Your task to perform on an android device: turn pop-ups on in chrome Image 0: 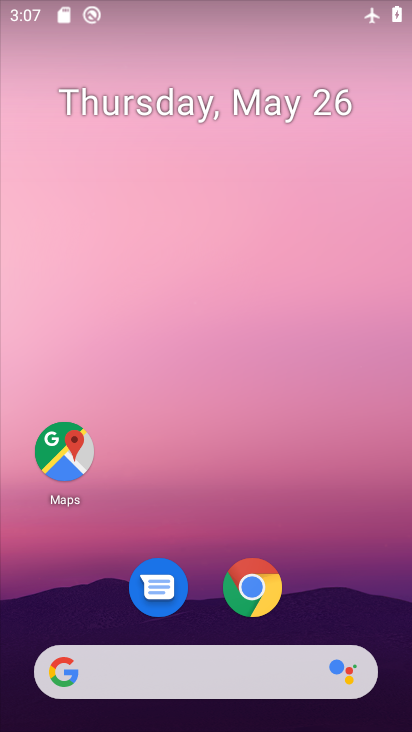
Step 0: drag from (284, 590) to (199, 253)
Your task to perform on an android device: turn pop-ups on in chrome Image 1: 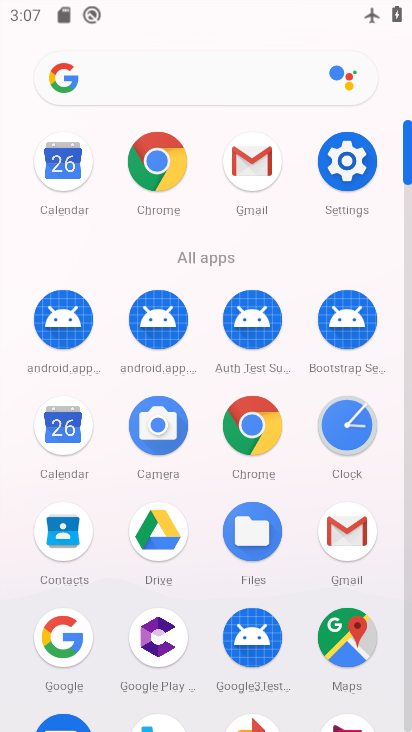
Step 1: click (154, 160)
Your task to perform on an android device: turn pop-ups on in chrome Image 2: 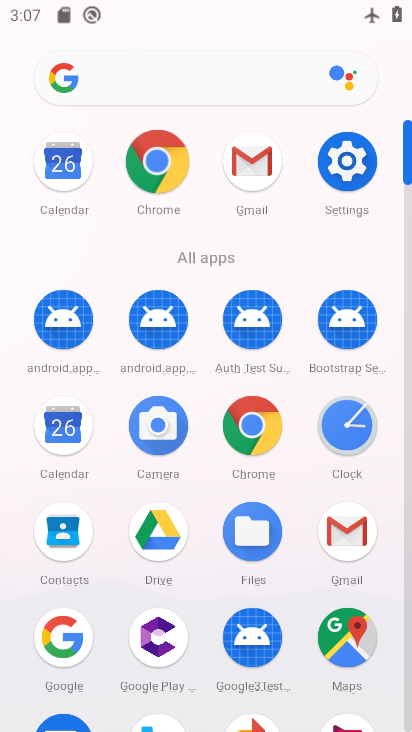
Step 2: click (153, 160)
Your task to perform on an android device: turn pop-ups on in chrome Image 3: 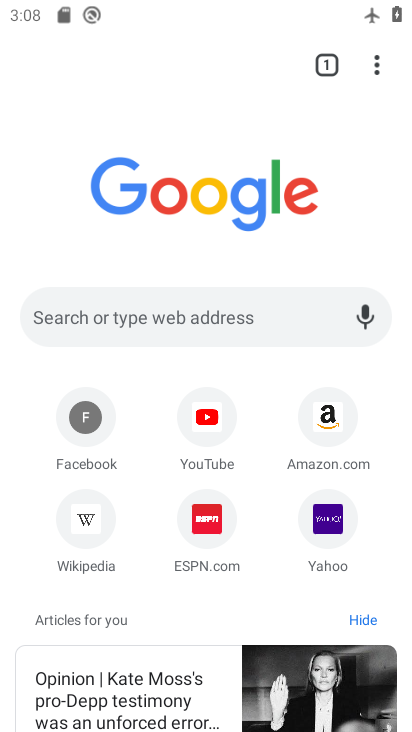
Step 3: click (385, 73)
Your task to perform on an android device: turn pop-ups on in chrome Image 4: 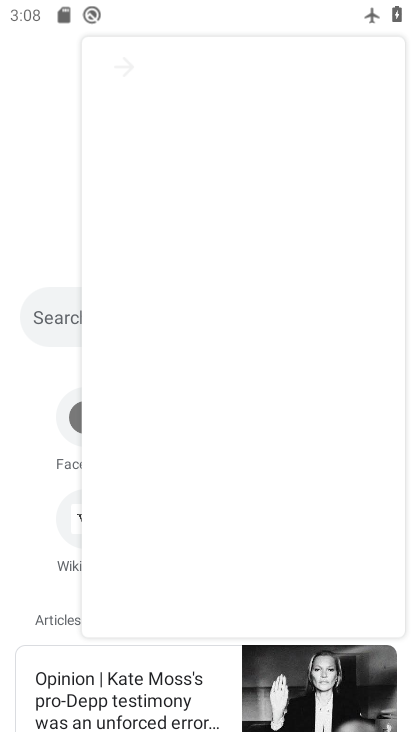
Step 4: click (381, 70)
Your task to perform on an android device: turn pop-ups on in chrome Image 5: 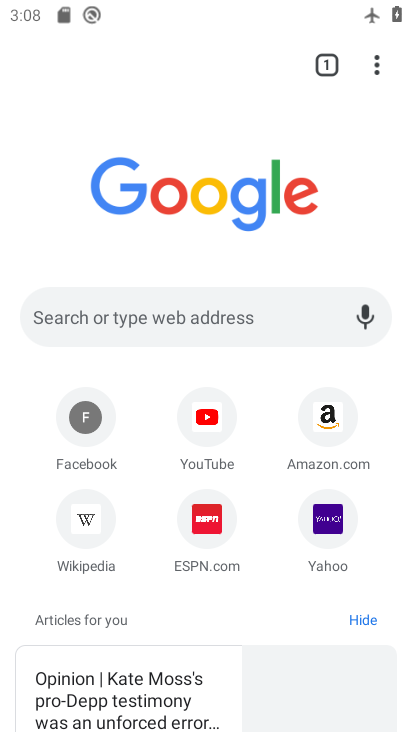
Step 5: click (377, 70)
Your task to perform on an android device: turn pop-ups on in chrome Image 6: 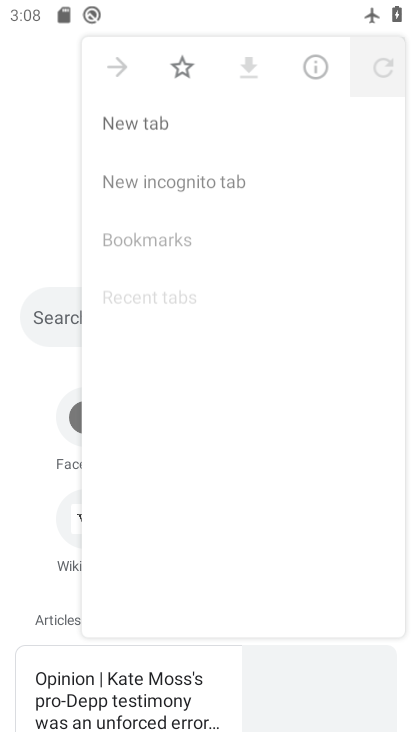
Step 6: click (377, 70)
Your task to perform on an android device: turn pop-ups on in chrome Image 7: 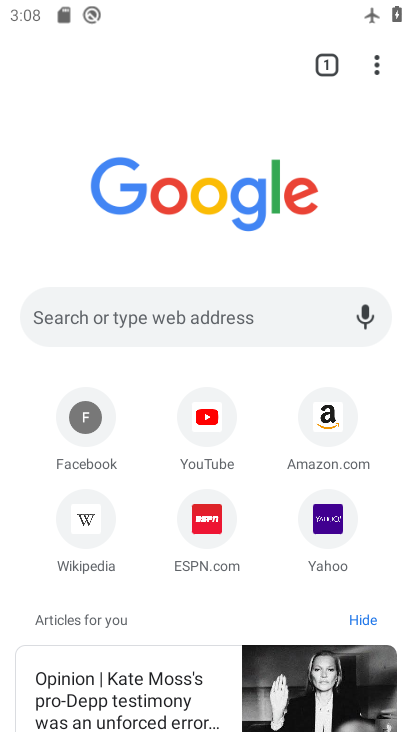
Step 7: drag from (256, 345) to (270, 51)
Your task to perform on an android device: turn pop-ups on in chrome Image 8: 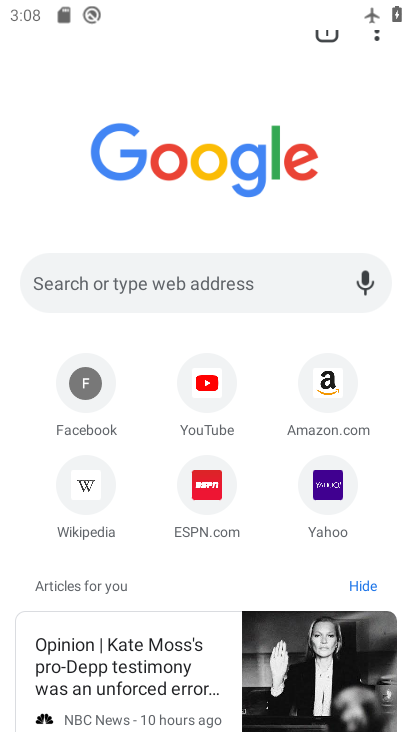
Step 8: drag from (244, 517) to (286, 93)
Your task to perform on an android device: turn pop-ups on in chrome Image 9: 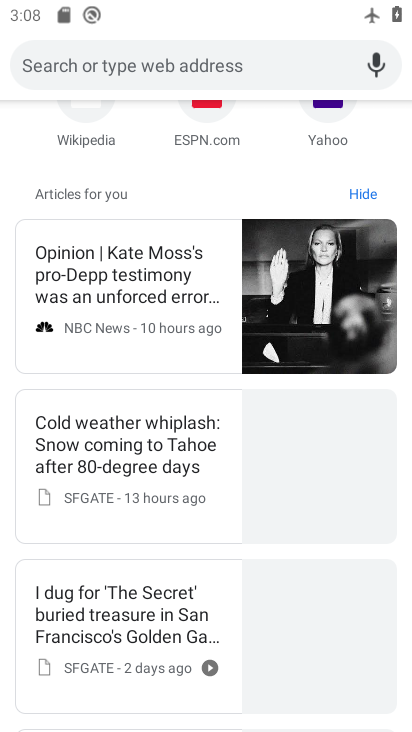
Step 9: drag from (291, 503) to (318, 82)
Your task to perform on an android device: turn pop-ups on in chrome Image 10: 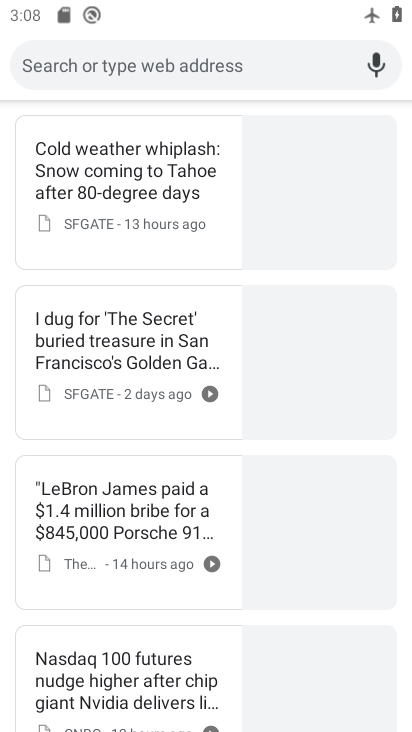
Step 10: press back button
Your task to perform on an android device: turn pop-ups on in chrome Image 11: 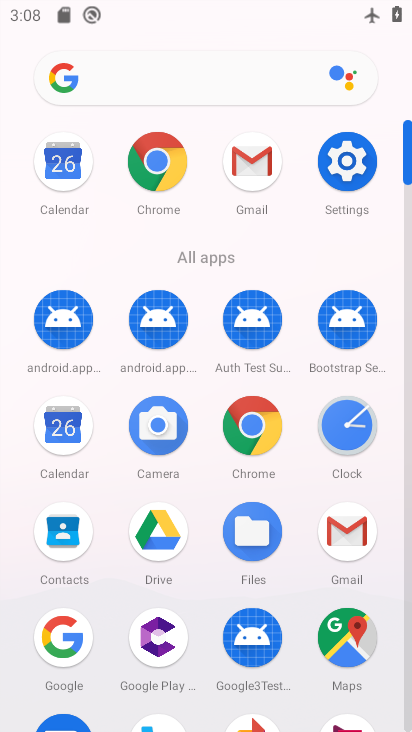
Step 11: click (148, 163)
Your task to perform on an android device: turn pop-ups on in chrome Image 12: 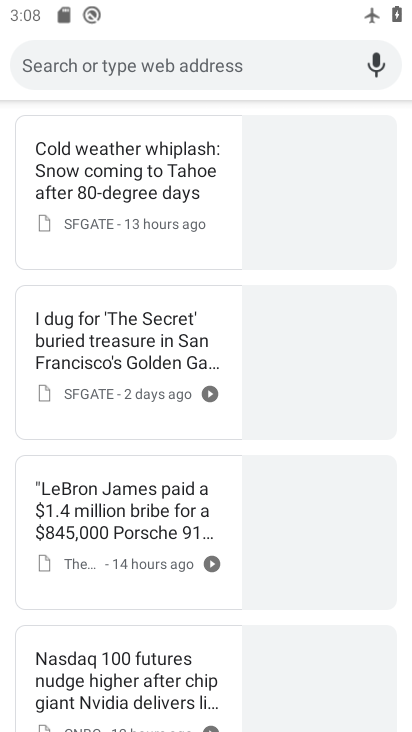
Step 12: press back button
Your task to perform on an android device: turn pop-ups on in chrome Image 13: 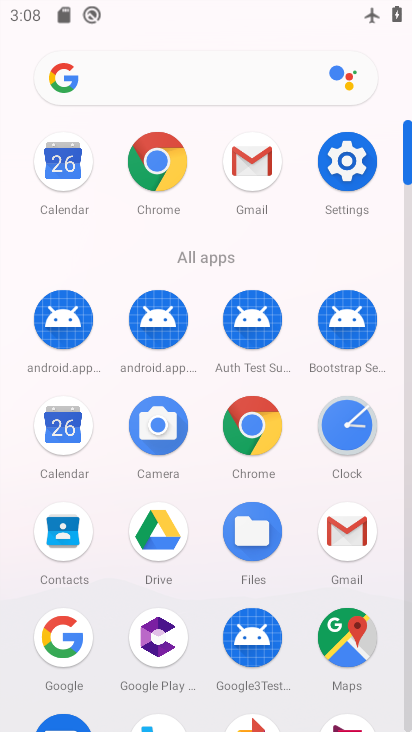
Step 13: click (155, 177)
Your task to perform on an android device: turn pop-ups on in chrome Image 14: 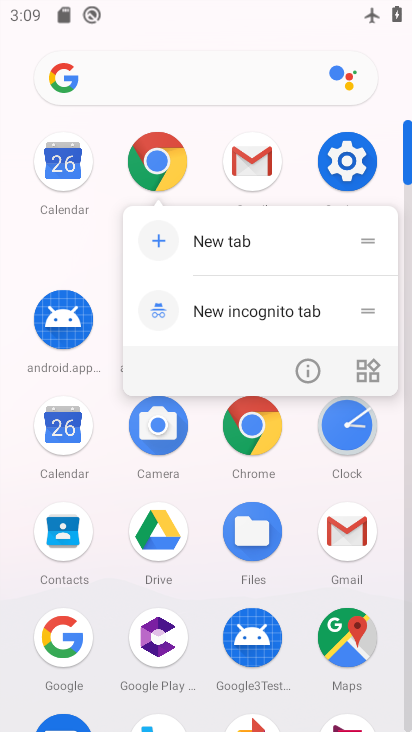
Step 14: click (293, 353)
Your task to perform on an android device: turn pop-ups on in chrome Image 15: 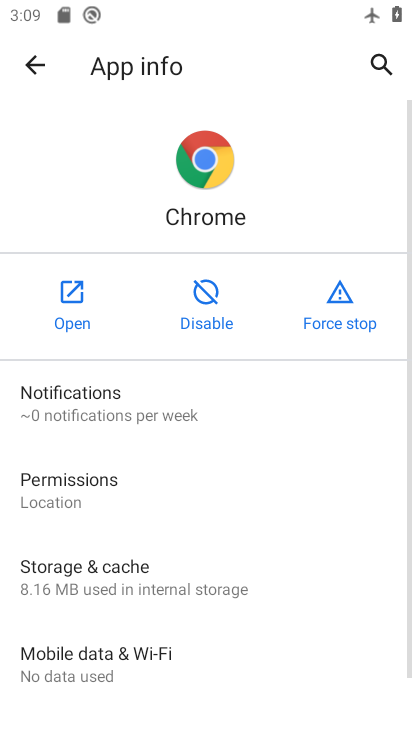
Step 15: click (51, 65)
Your task to perform on an android device: turn pop-ups on in chrome Image 16: 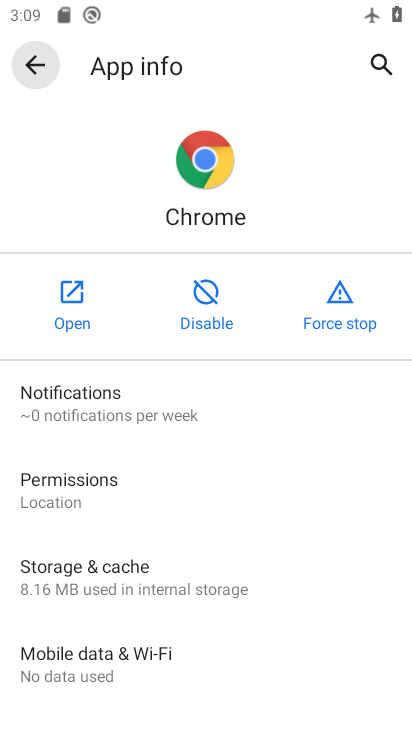
Step 16: click (37, 64)
Your task to perform on an android device: turn pop-ups on in chrome Image 17: 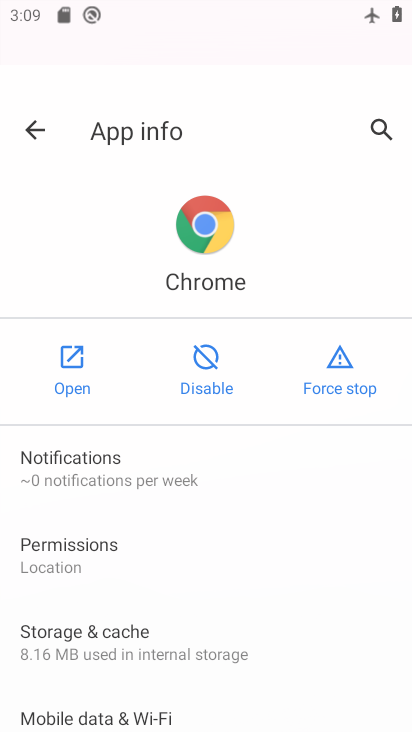
Step 17: click (38, 71)
Your task to perform on an android device: turn pop-ups on in chrome Image 18: 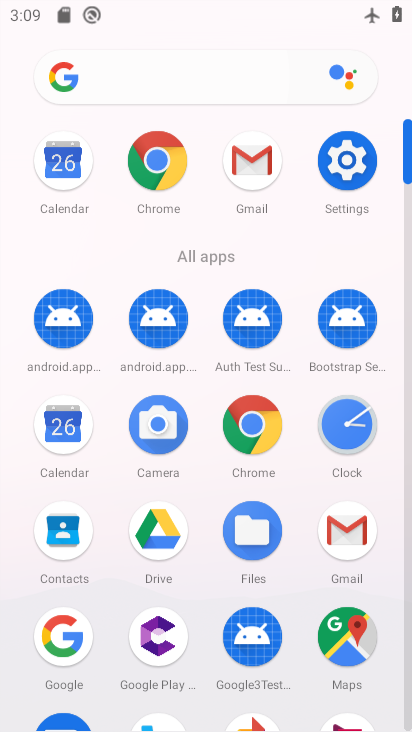
Step 18: click (38, 71)
Your task to perform on an android device: turn pop-ups on in chrome Image 19: 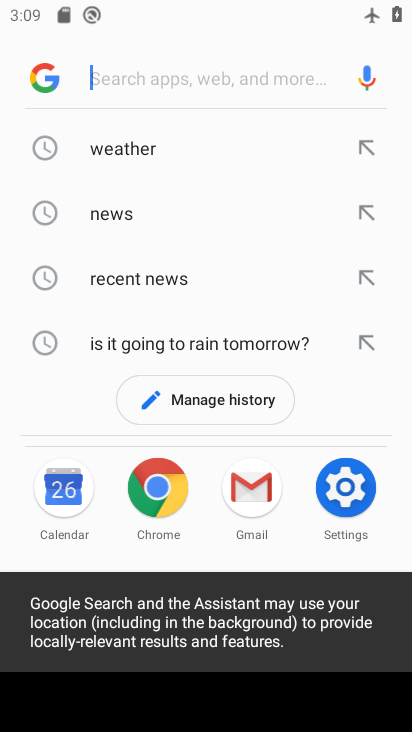
Step 19: click (354, 147)
Your task to perform on an android device: turn pop-ups on in chrome Image 20: 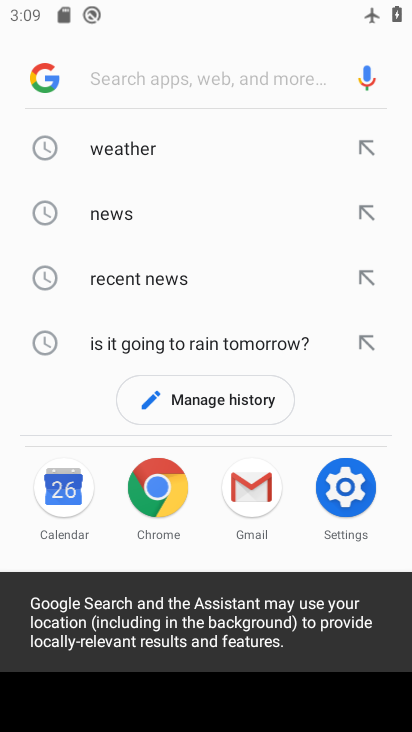
Step 20: click (354, 147)
Your task to perform on an android device: turn pop-ups on in chrome Image 21: 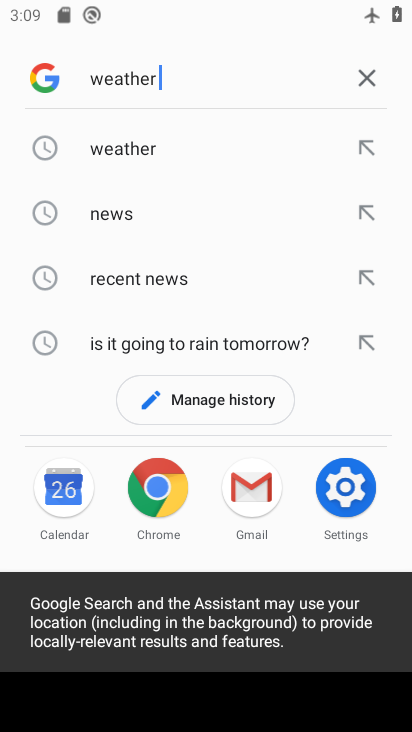
Step 21: click (354, 147)
Your task to perform on an android device: turn pop-ups on in chrome Image 22: 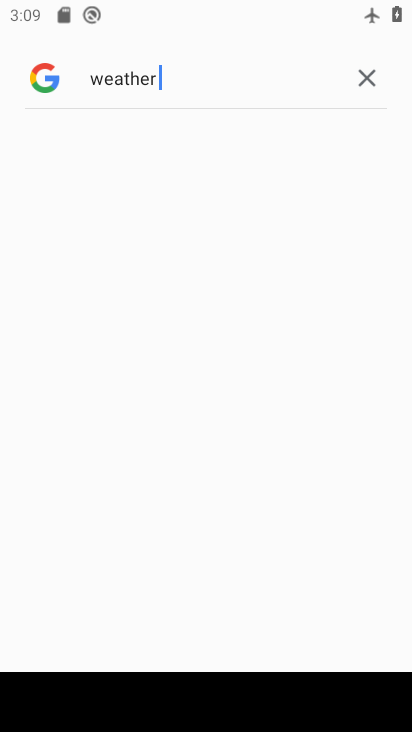
Step 22: click (360, 164)
Your task to perform on an android device: turn pop-ups on in chrome Image 23: 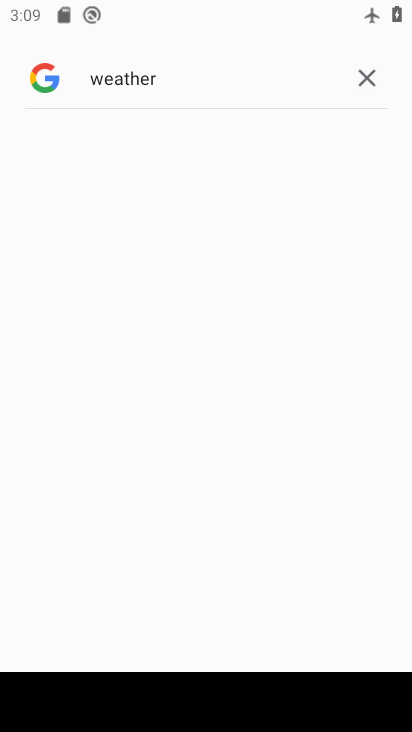
Step 23: press back button
Your task to perform on an android device: turn pop-ups on in chrome Image 24: 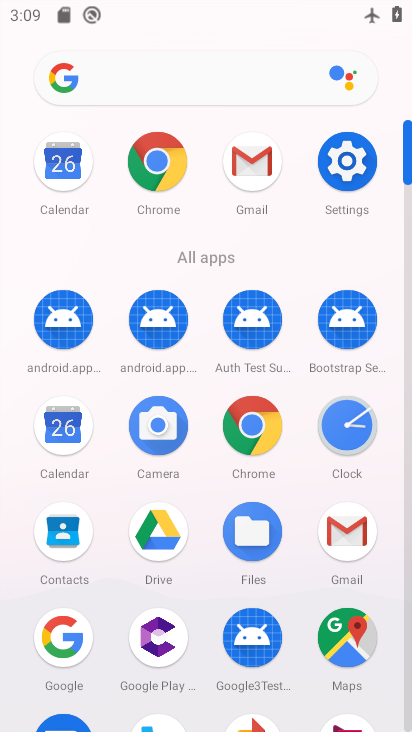
Step 24: click (160, 161)
Your task to perform on an android device: turn pop-ups on in chrome Image 25: 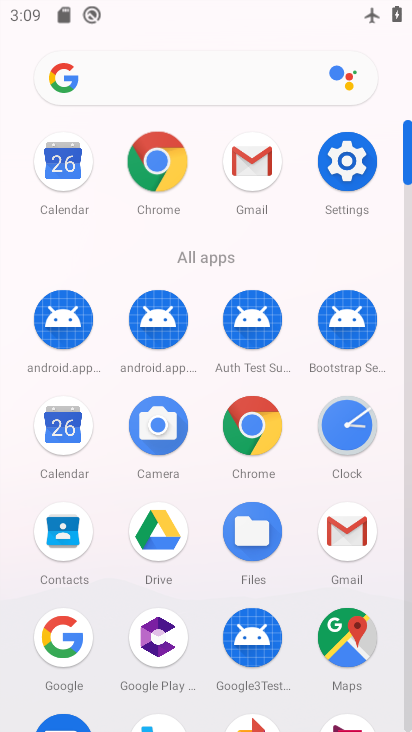
Step 25: click (164, 168)
Your task to perform on an android device: turn pop-ups on in chrome Image 26: 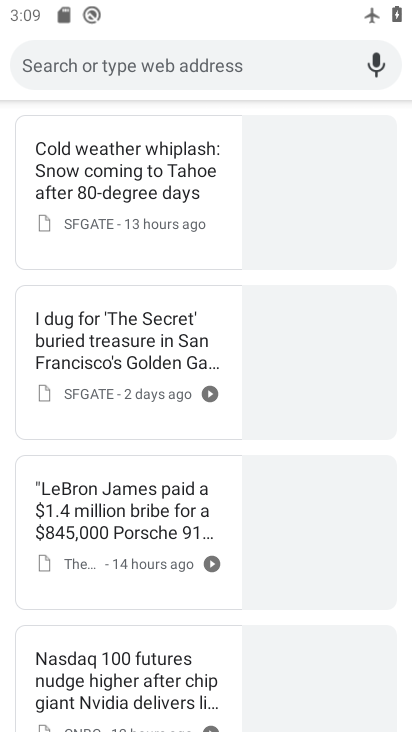
Step 26: press back button
Your task to perform on an android device: turn pop-ups on in chrome Image 27: 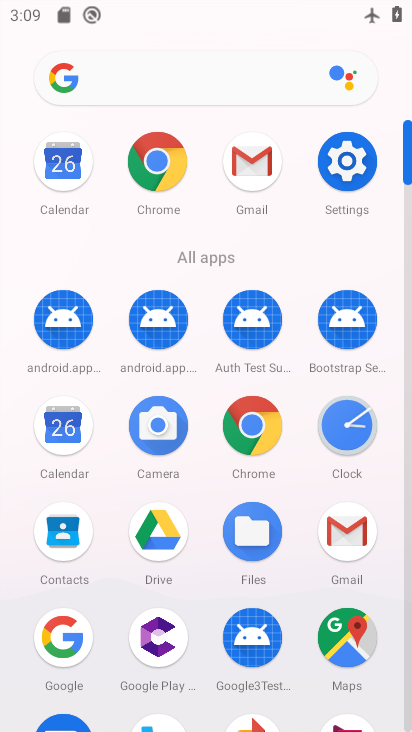
Step 27: click (157, 173)
Your task to perform on an android device: turn pop-ups on in chrome Image 28: 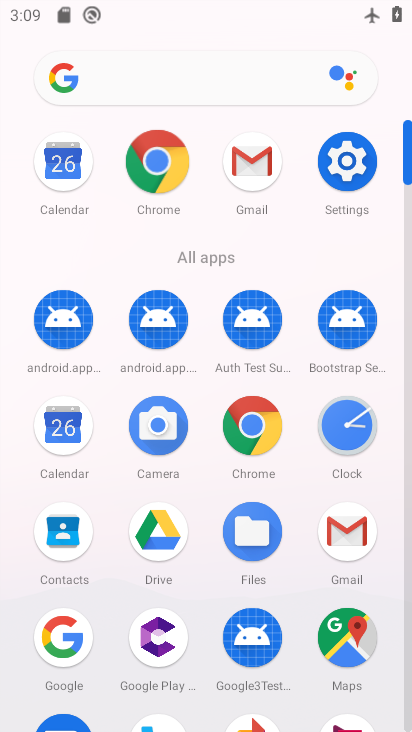
Step 28: click (155, 172)
Your task to perform on an android device: turn pop-ups on in chrome Image 29: 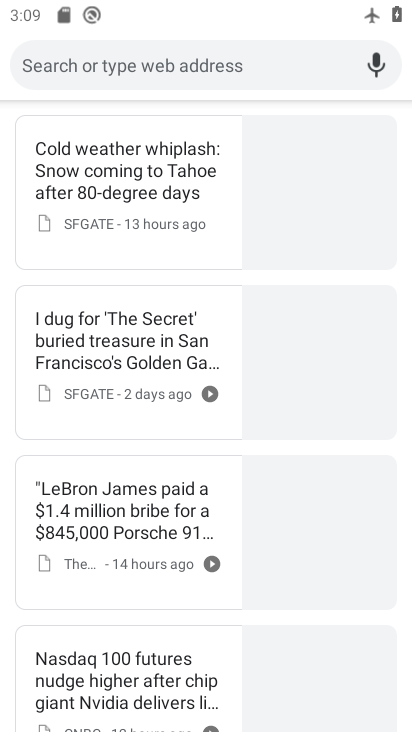
Step 29: press back button
Your task to perform on an android device: turn pop-ups on in chrome Image 30: 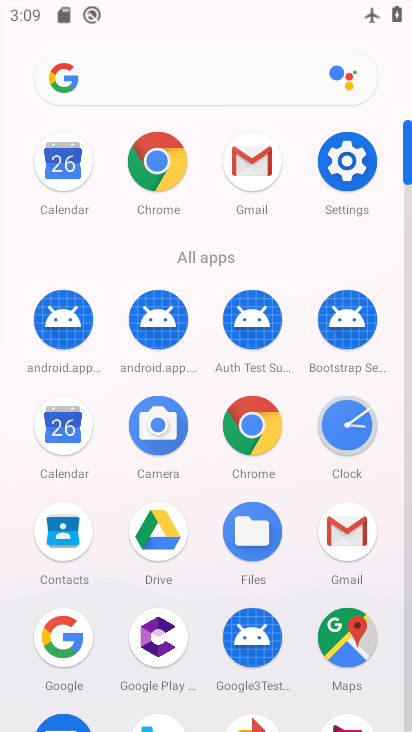
Step 30: click (162, 175)
Your task to perform on an android device: turn pop-ups on in chrome Image 31: 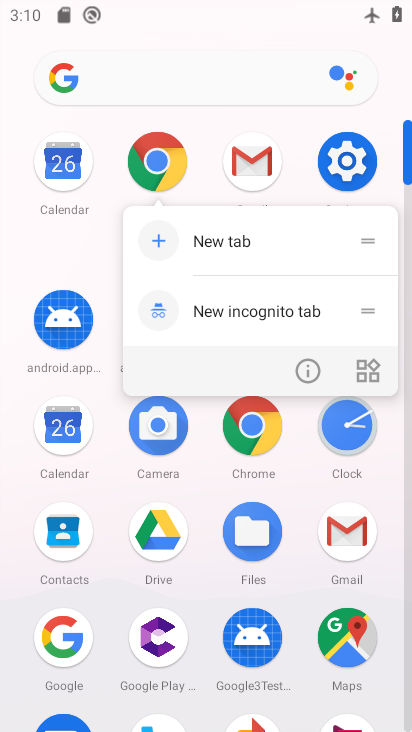
Step 31: click (155, 162)
Your task to perform on an android device: turn pop-ups on in chrome Image 32: 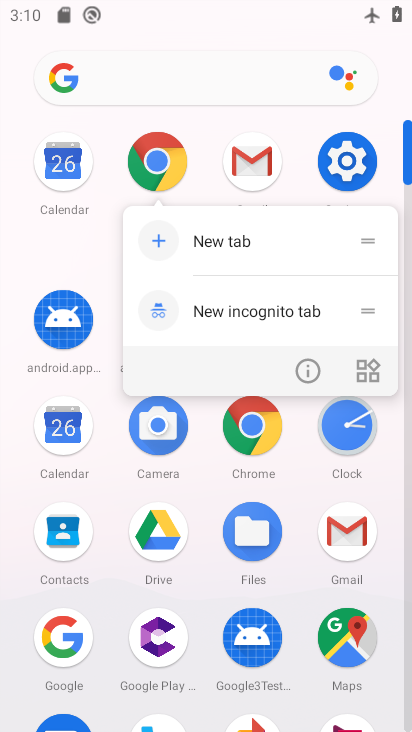
Step 32: click (162, 155)
Your task to perform on an android device: turn pop-ups on in chrome Image 33: 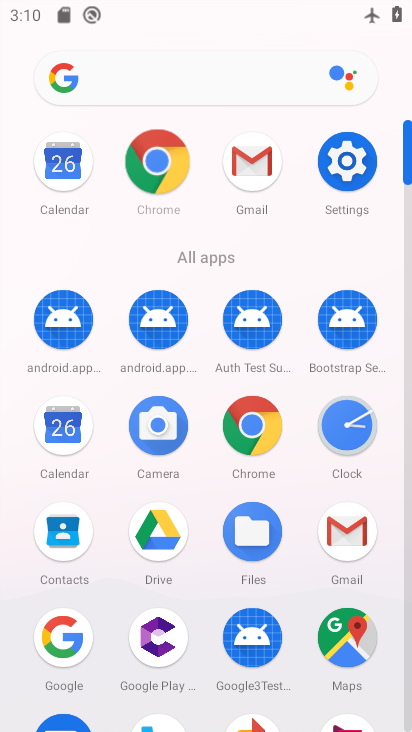
Step 33: click (161, 163)
Your task to perform on an android device: turn pop-ups on in chrome Image 34: 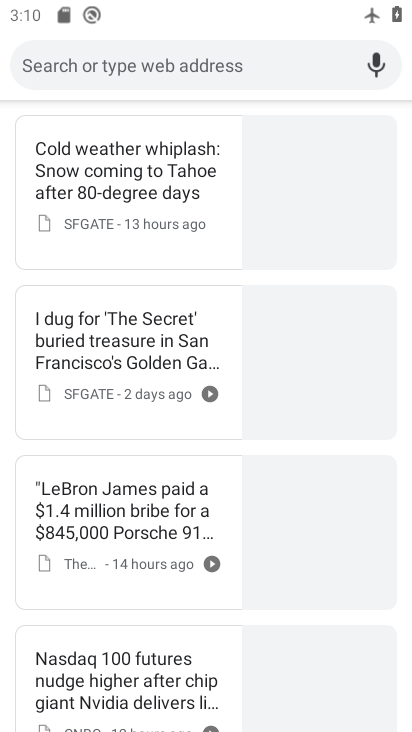
Step 34: task complete